Your task to perform on an android device: turn notification dots off Image 0: 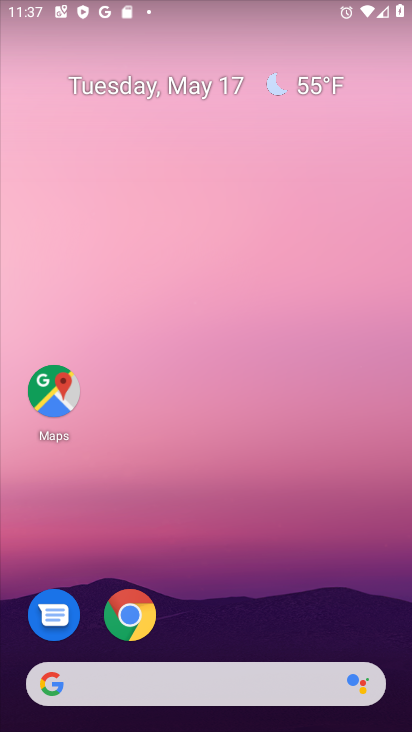
Step 0: drag from (218, 614) to (301, 90)
Your task to perform on an android device: turn notification dots off Image 1: 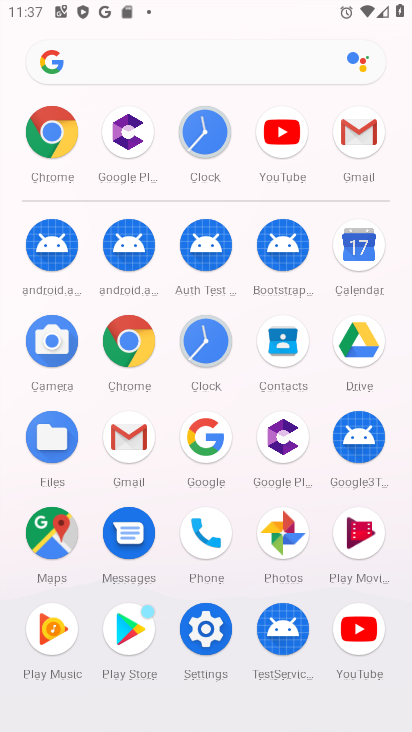
Step 1: click (204, 625)
Your task to perform on an android device: turn notification dots off Image 2: 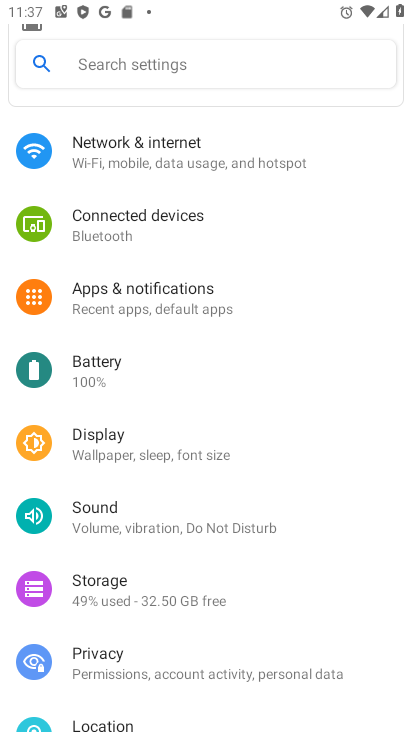
Step 2: click (179, 308)
Your task to perform on an android device: turn notification dots off Image 3: 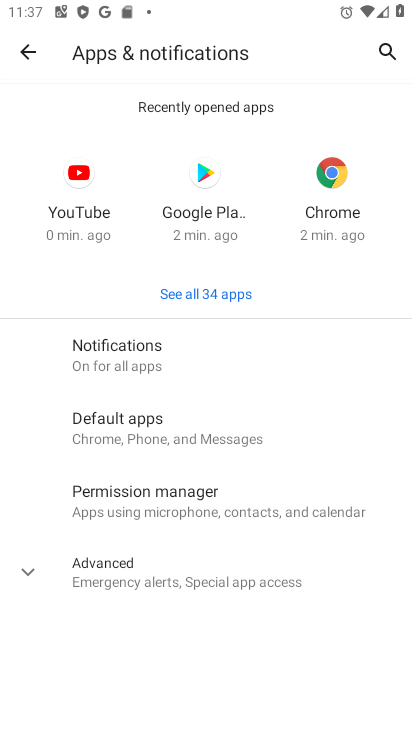
Step 3: click (150, 348)
Your task to perform on an android device: turn notification dots off Image 4: 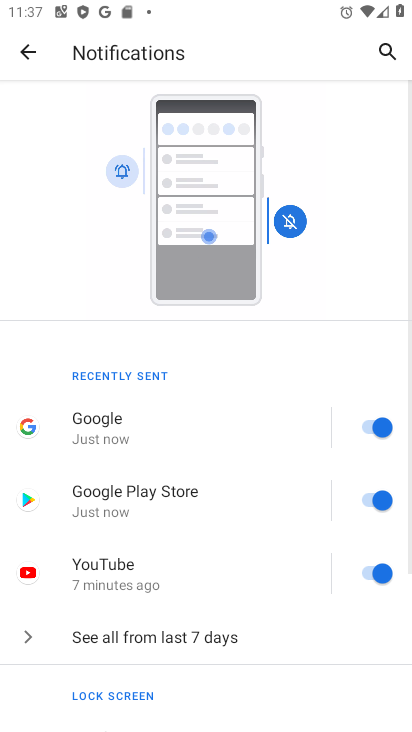
Step 4: drag from (183, 638) to (292, 56)
Your task to perform on an android device: turn notification dots off Image 5: 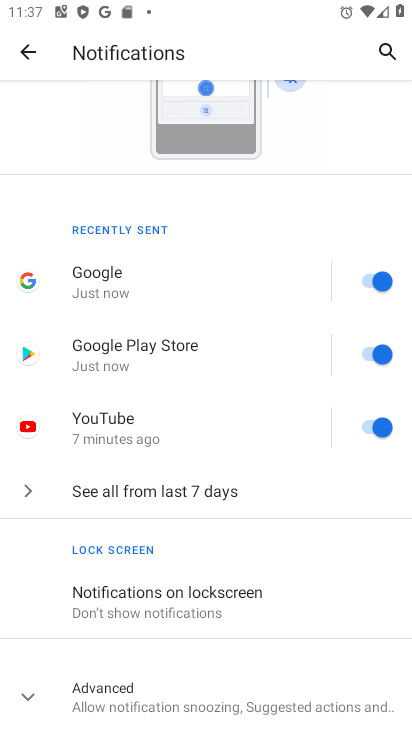
Step 5: click (130, 721)
Your task to perform on an android device: turn notification dots off Image 6: 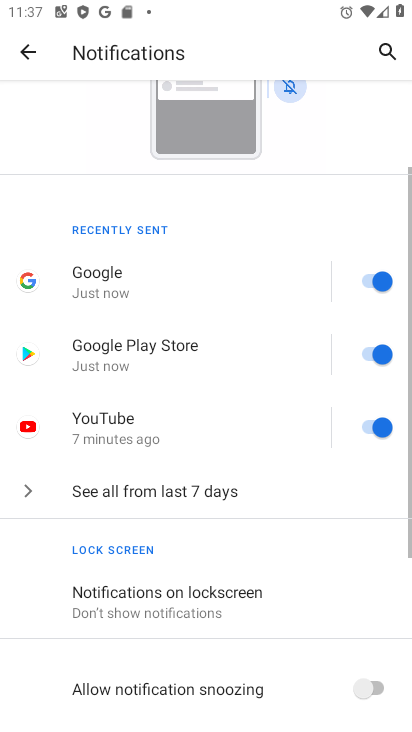
Step 6: drag from (152, 691) to (217, 288)
Your task to perform on an android device: turn notification dots off Image 7: 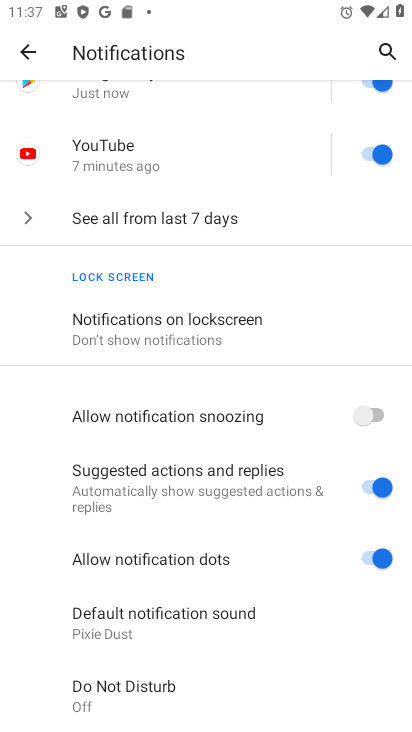
Step 7: click (372, 543)
Your task to perform on an android device: turn notification dots off Image 8: 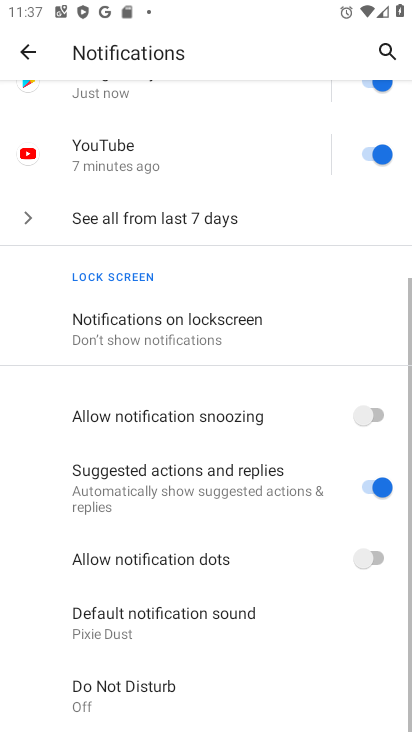
Step 8: task complete